Your task to perform on an android device: open a bookmark in the chrome app Image 0: 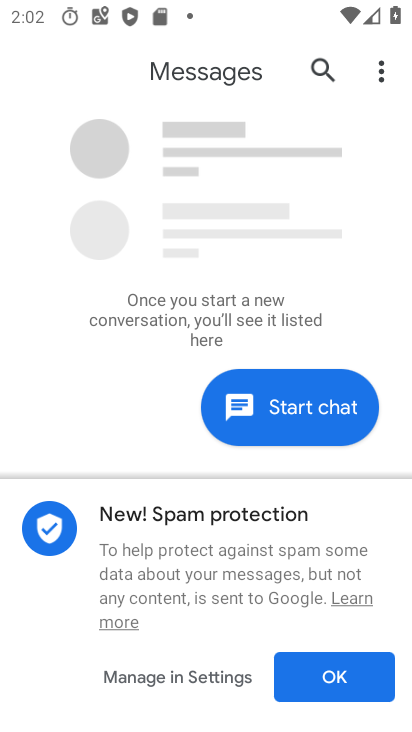
Step 0: press home button
Your task to perform on an android device: open a bookmark in the chrome app Image 1: 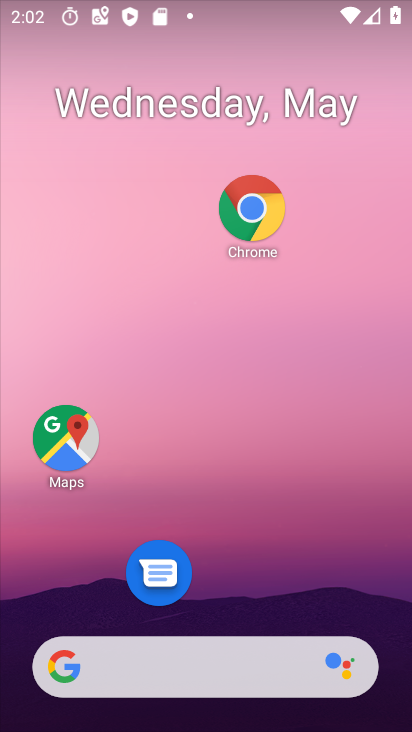
Step 1: click (257, 210)
Your task to perform on an android device: open a bookmark in the chrome app Image 2: 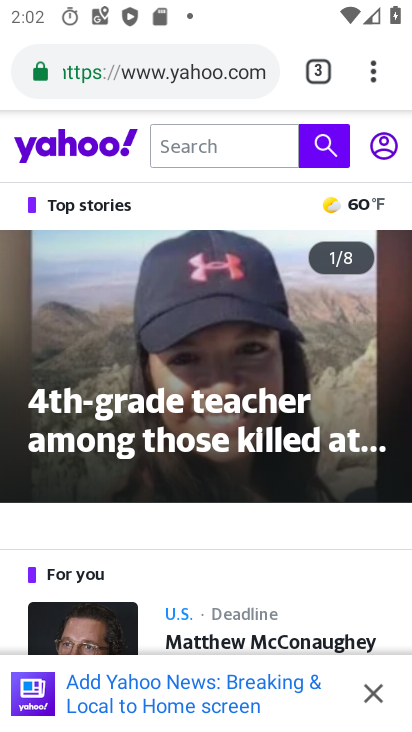
Step 2: click (380, 70)
Your task to perform on an android device: open a bookmark in the chrome app Image 3: 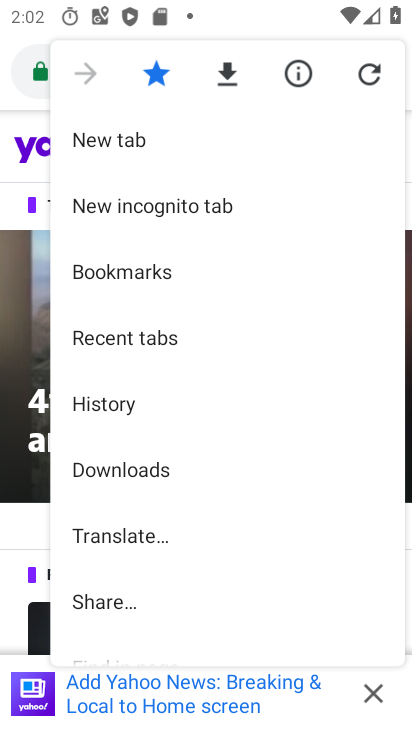
Step 3: click (155, 274)
Your task to perform on an android device: open a bookmark in the chrome app Image 4: 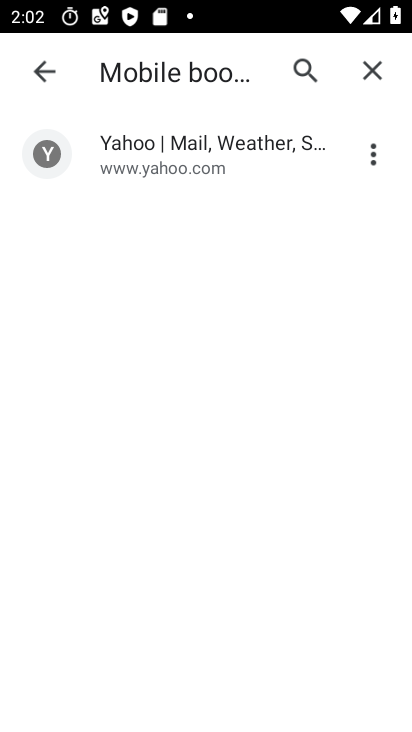
Step 4: click (140, 154)
Your task to perform on an android device: open a bookmark in the chrome app Image 5: 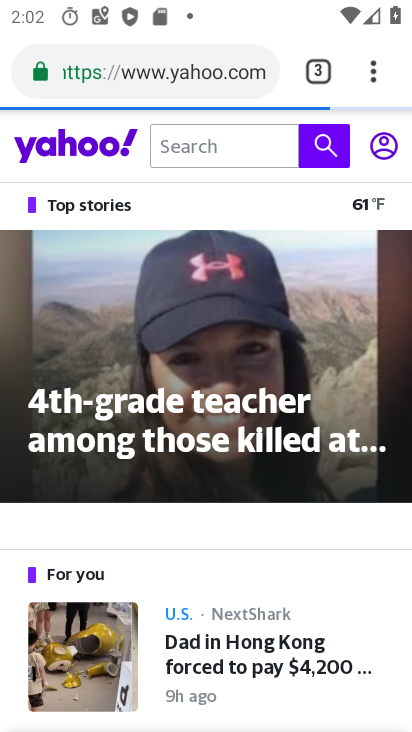
Step 5: task complete